Your task to perform on an android device: Show the shopping cart on target.com. Search for "alienware area 51" on target.com, select the first entry, add it to the cart, then select checkout. Image 0: 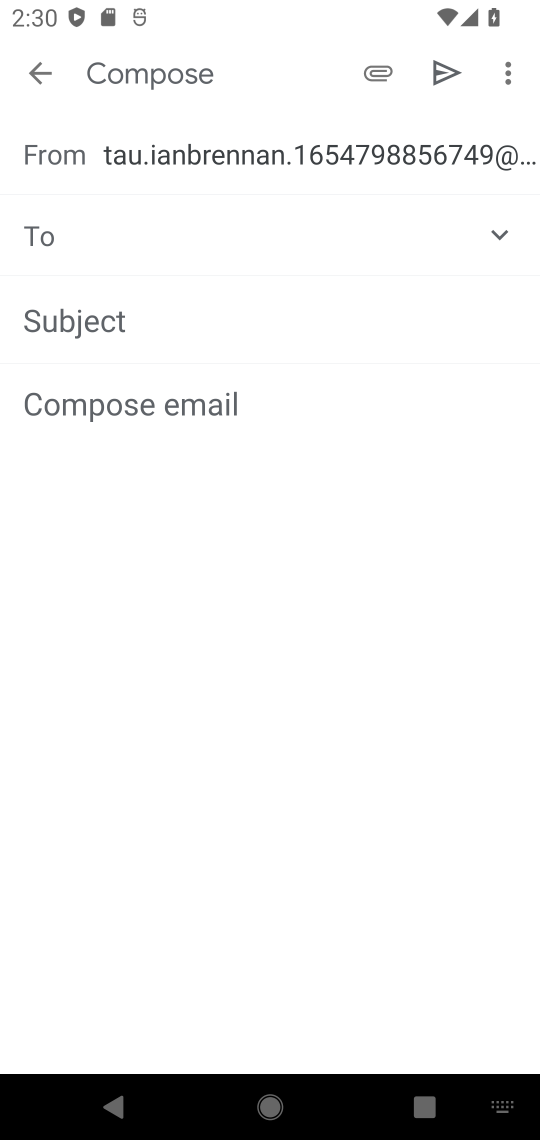
Step 0: press home button
Your task to perform on an android device: Show the shopping cart on target.com. Search for "alienware area 51" on target.com, select the first entry, add it to the cart, then select checkout. Image 1: 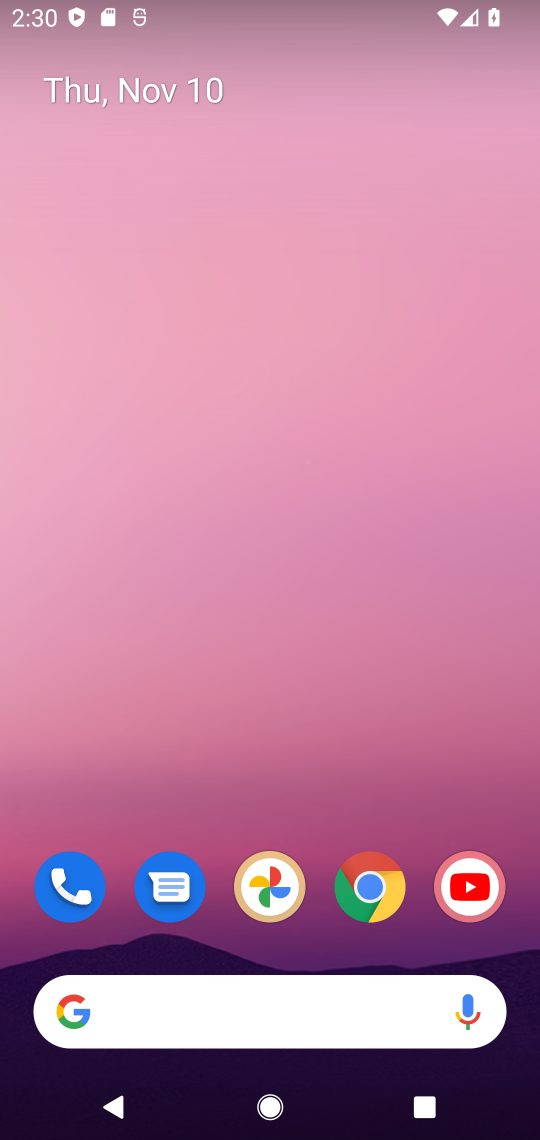
Step 1: drag from (304, 951) to (300, 24)
Your task to perform on an android device: Show the shopping cart on target.com. Search for "alienware area 51" on target.com, select the first entry, add it to the cart, then select checkout. Image 2: 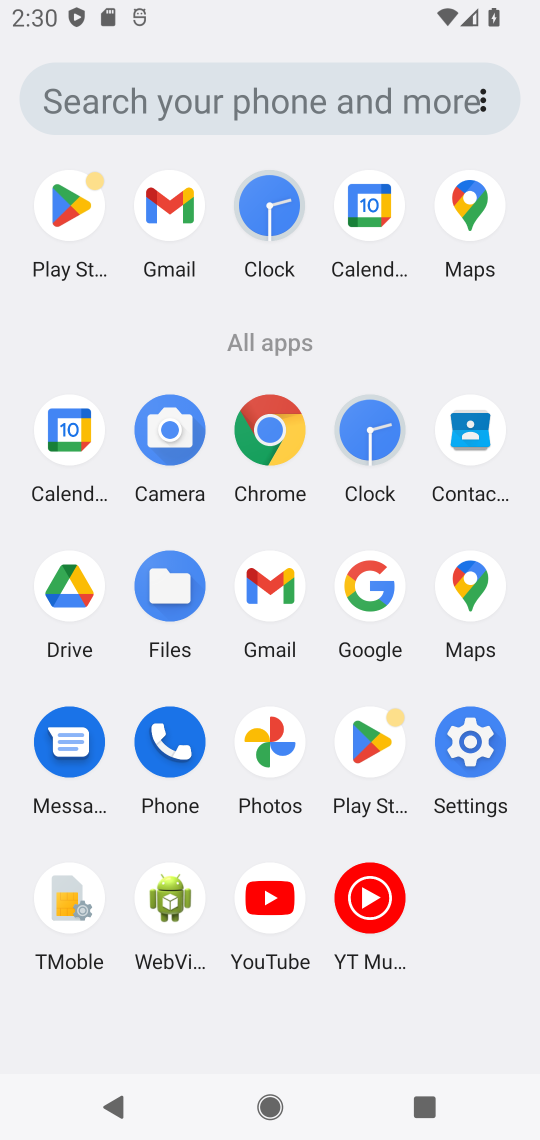
Step 2: click (276, 428)
Your task to perform on an android device: Show the shopping cart on target.com. Search for "alienware area 51" on target.com, select the first entry, add it to the cart, then select checkout. Image 3: 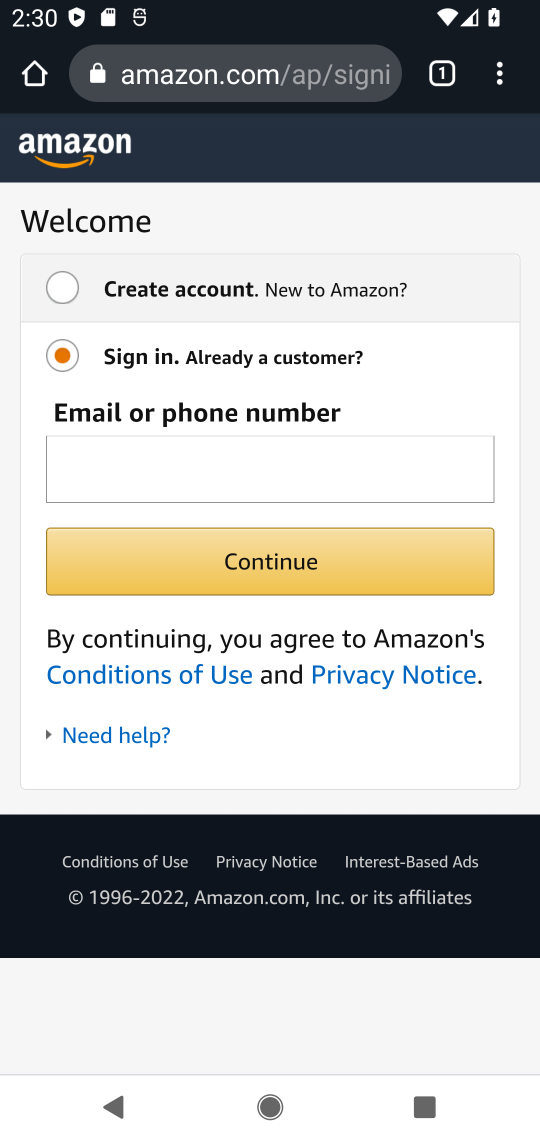
Step 3: click (278, 71)
Your task to perform on an android device: Show the shopping cart on target.com. Search for "alienware area 51" on target.com, select the first entry, add it to the cart, then select checkout. Image 4: 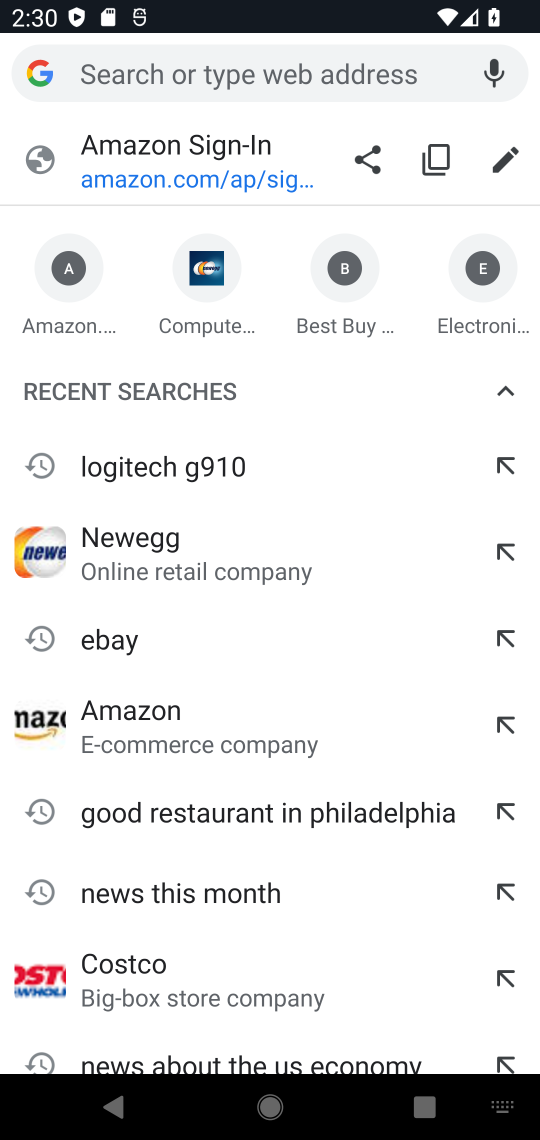
Step 4: type "target.com"
Your task to perform on an android device: Show the shopping cart on target.com. Search for "alienware area 51" on target.com, select the first entry, add it to the cart, then select checkout. Image 5: 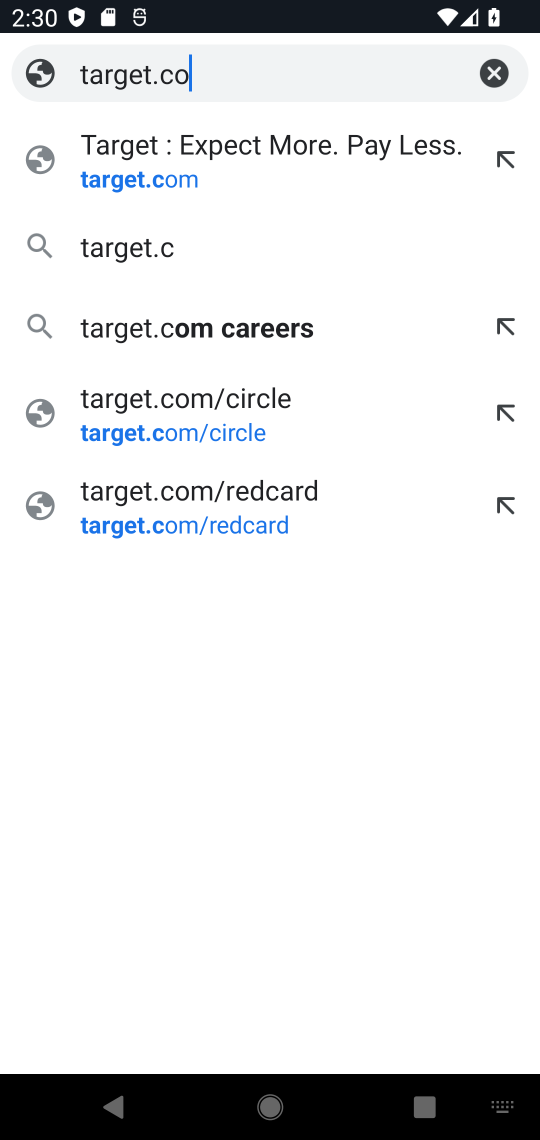
Step 5: press enter
Your task to perform on an android device: Show the shopping cart on target.com. Search for "alienware area 51" on target.com, select the first entry, add it to the cart, then select checkout. Image 6: 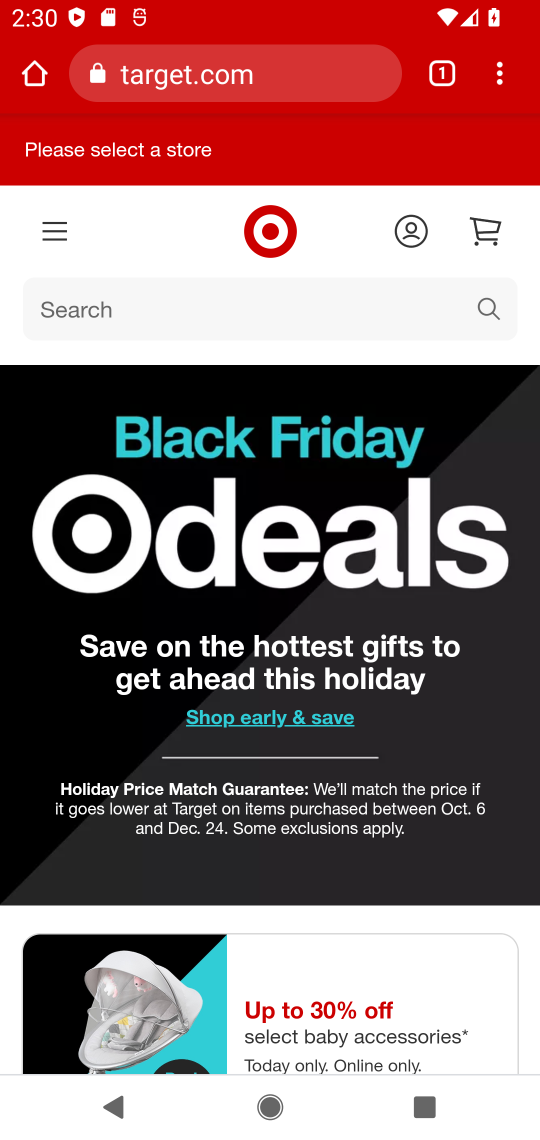
Step 6: click (191, 305)
Your task to perform on an android device: Show the shopping cart on target.com. Search for "alienware area 51" on target.com, select the first entry, add it to the cart, then select checkout. Image 7: 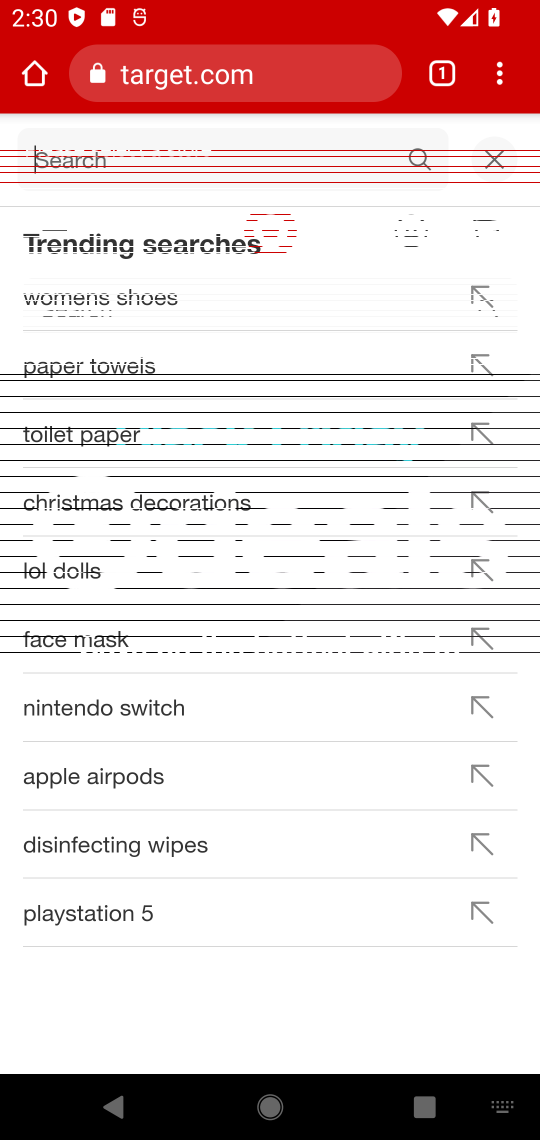
Step 7: click (275, 69)
Your task to perform on an android device: Show the shopping cart on target.com. Search for "alienware area 51" on target.com, select the first entry, add it to the cart, then select checkout. Image 8: 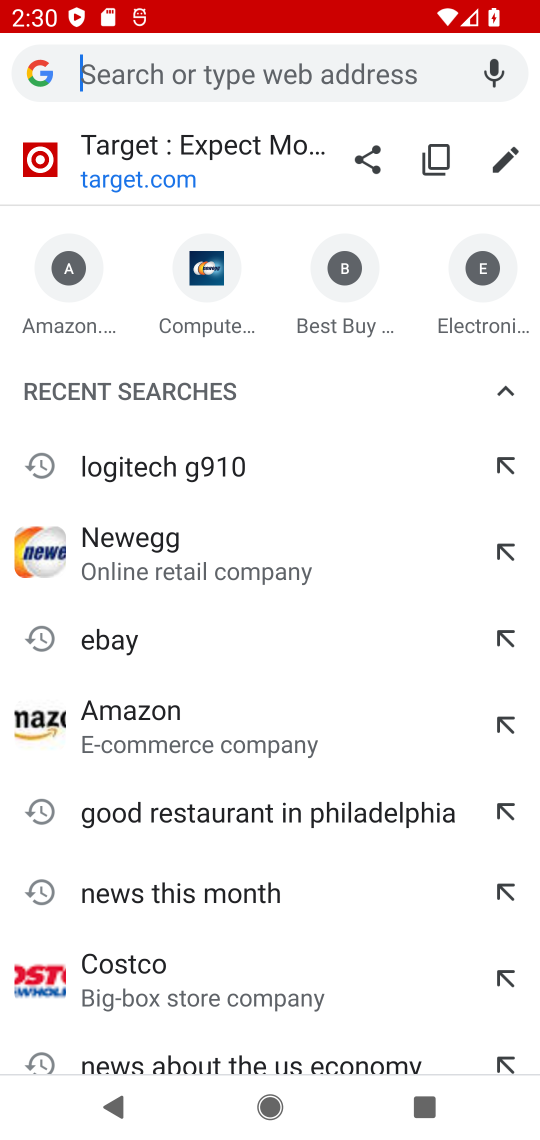
Step 8: type "target.com"
Your task to perform on an android device: Show the shopping cart on target.com. Search for "alienware area 51" on target.com, select the first entry, add it to the cart, then select checkout. Image 9: 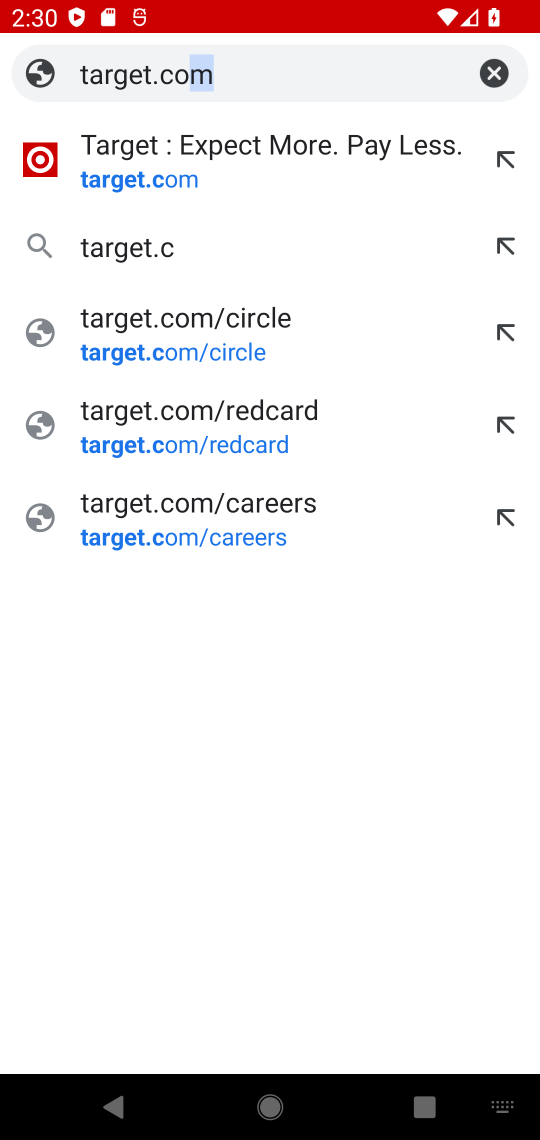
Step 9: press enter
Your task to perform on an android device: Show the shopping cart on target.com. Search for "alienware area 51" on target.com, select the first entry, add it to the cart, then select checkout. Image 10: 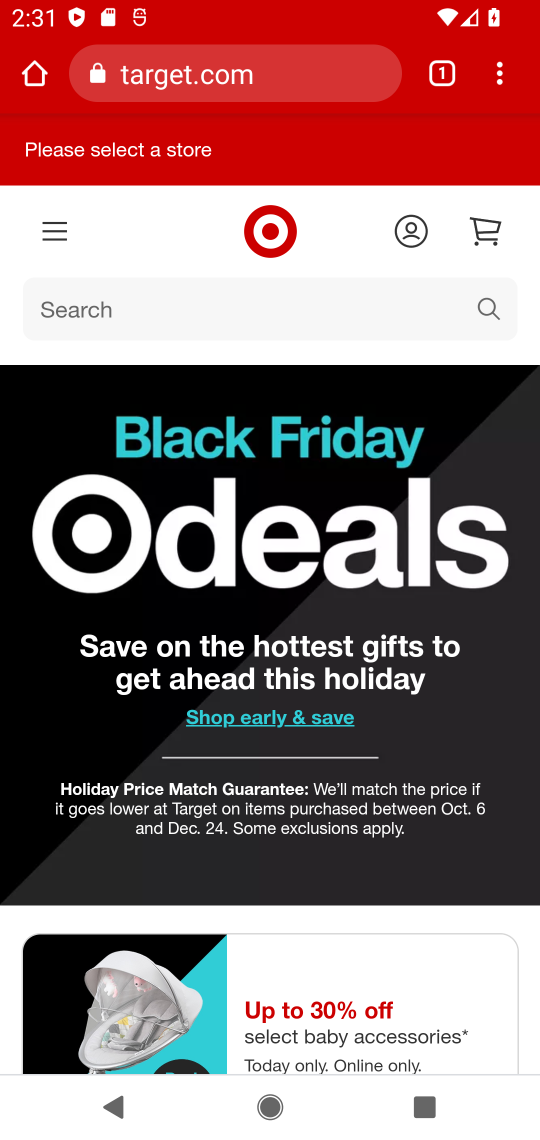
Step 10: click (494, 229)
Your task to perform on an android device: Show the shopping cart on target.com. Search for "alienware area 51" on target.com, select the first entry, add it to the cart, then select checkout. Image 11: 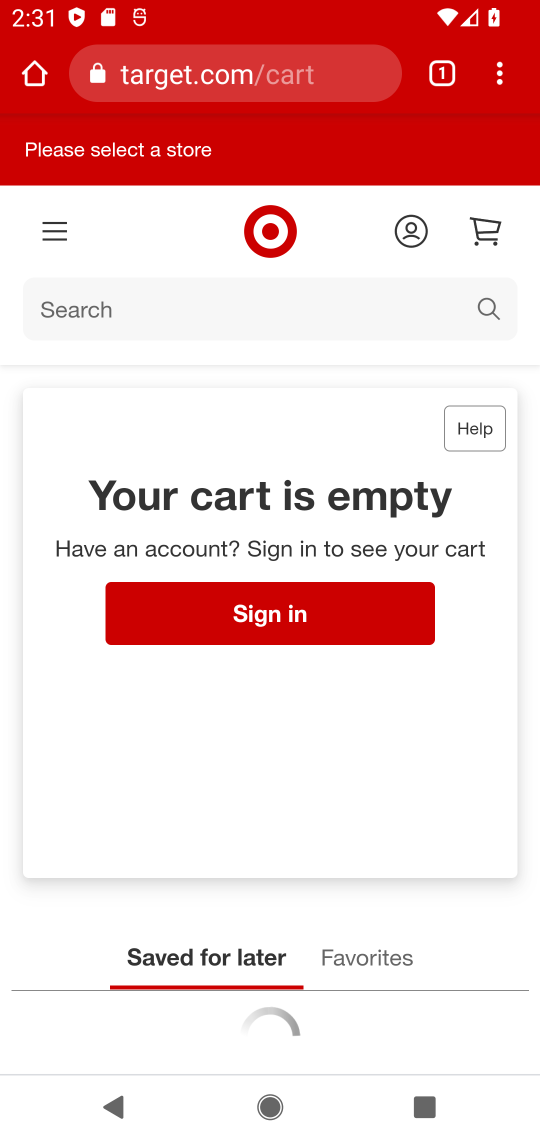
Step 11: click (136, 313)
Your task to perform on an android device: Show the shopping cart on target.com. Search for "alienware area 51" on target.com, select the first entry, add it to the cart, then select checkout. Image 12: 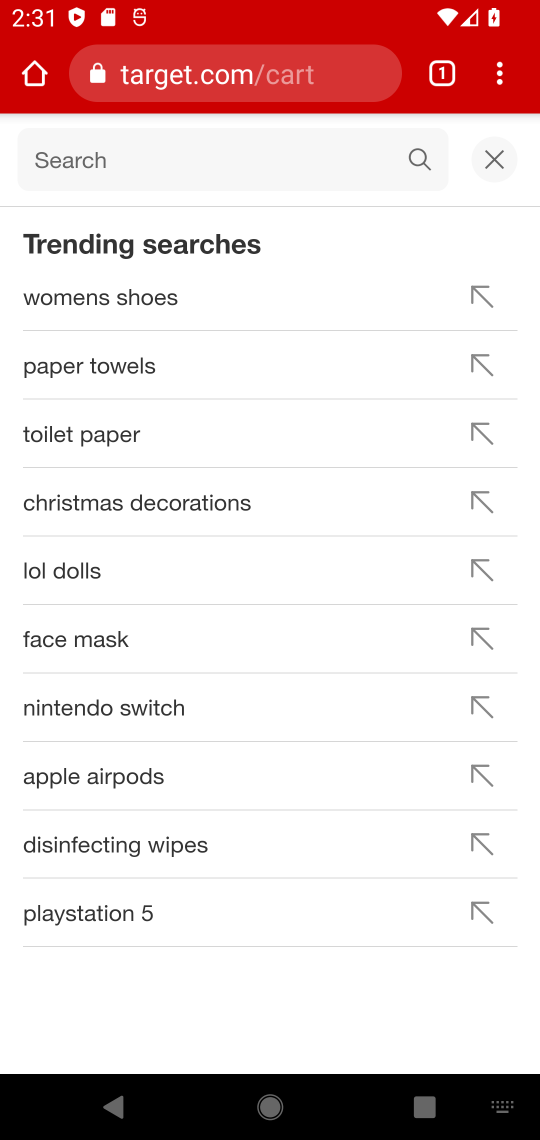
Step 12: type "alienware area 51"
Your task to perform on an android device: Show the shopping cart on target.com. Search for "alienware area 51" on target.com, select the first entry, add it to the cart, then select checkout. Image 13: 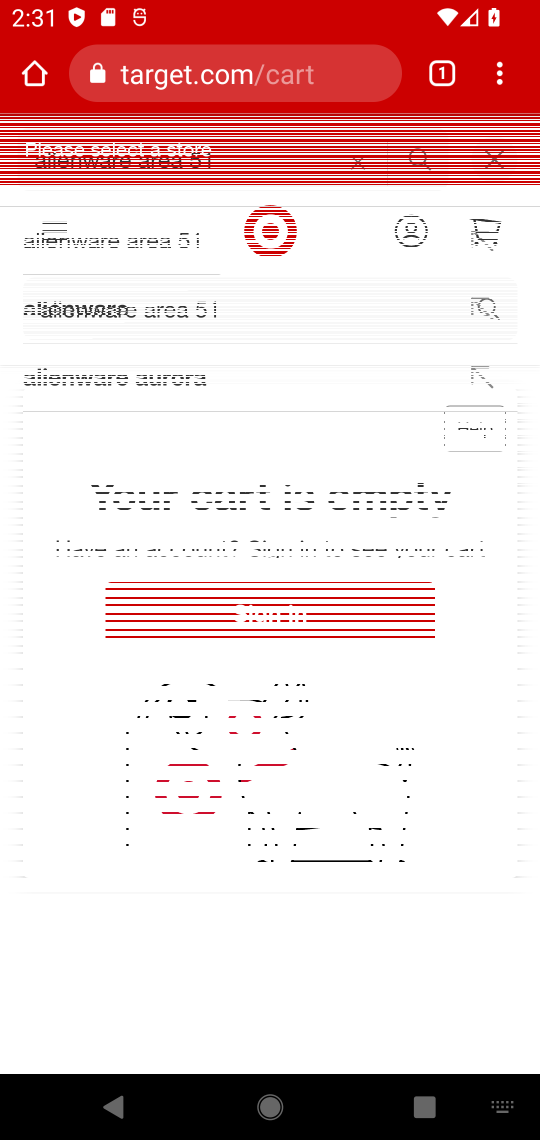
Step 13: press enter
Your task to perform on an android device: Show the shopping cart on target.com. Search for "alienware area 51" on target.com, select the first entry, add it to the cart, then select checkout. Image 14: 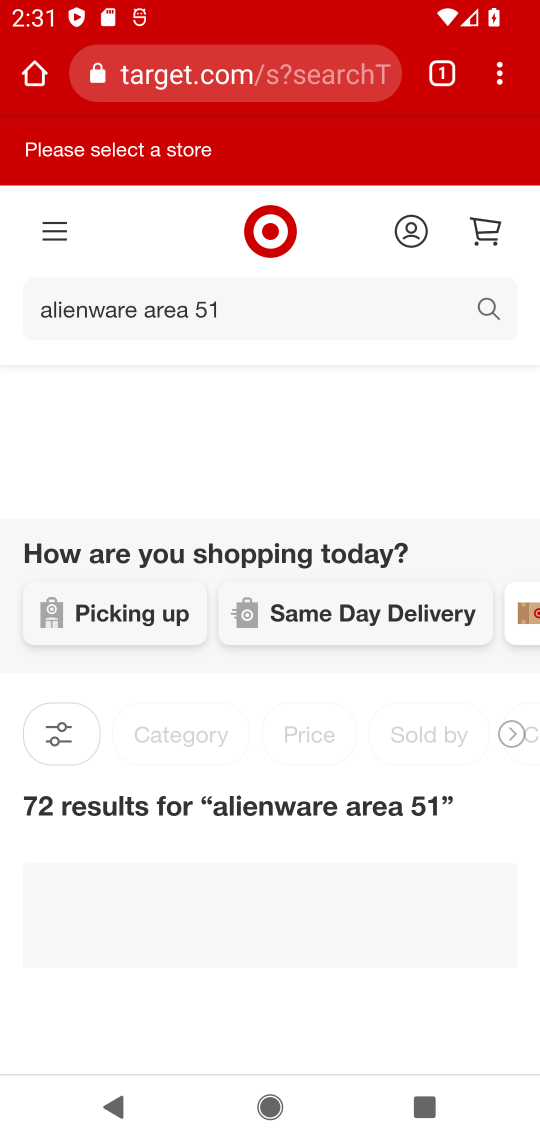
Step 14: task complete